Your task to perform on an android device: Check the weather Image 0: 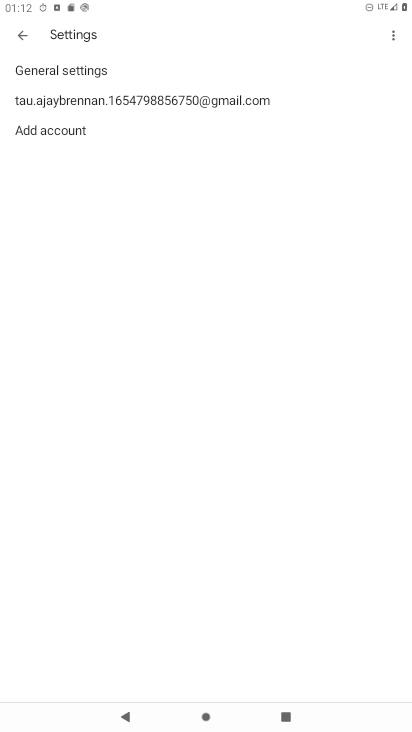
Step 0: press home button
Your task to perform on an android device: Check the weather Image 1: 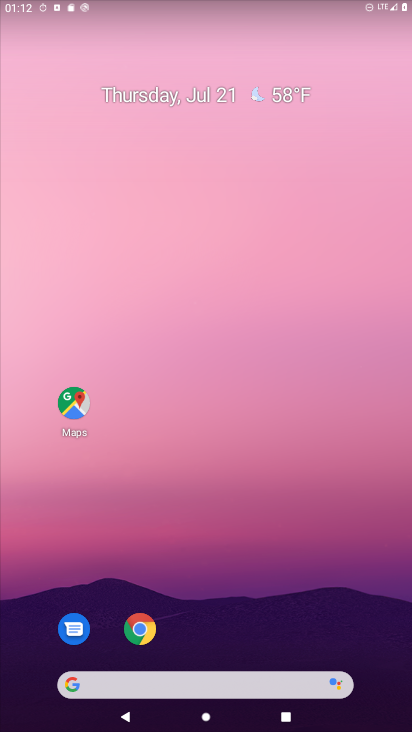
Step 1: drag from (193, 629) to (198, 91)
Your task to perform on an android device: Check the weather Image 2: 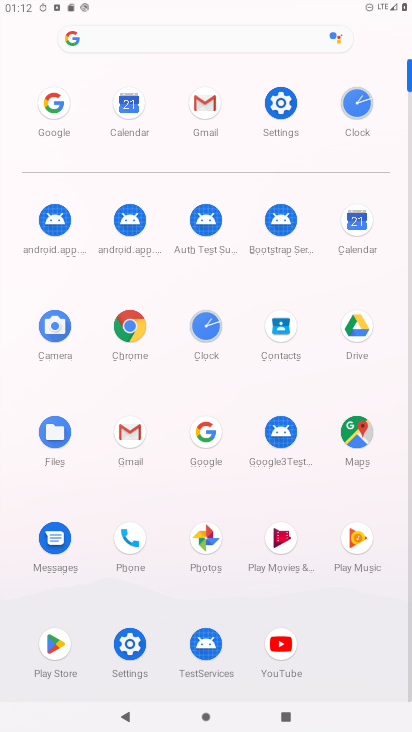
Step 2: click (63, 109)
Your task to perform on an android device: Check the weather Image 3: 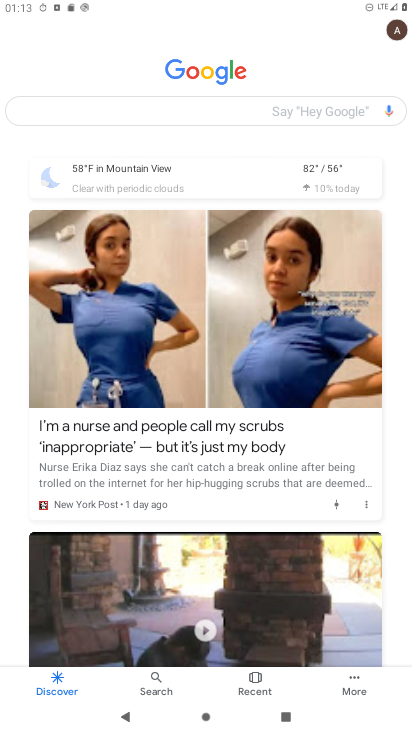
Step 3: click (101, 168)
Your task to perform on an android device: Check the weather Image 4: 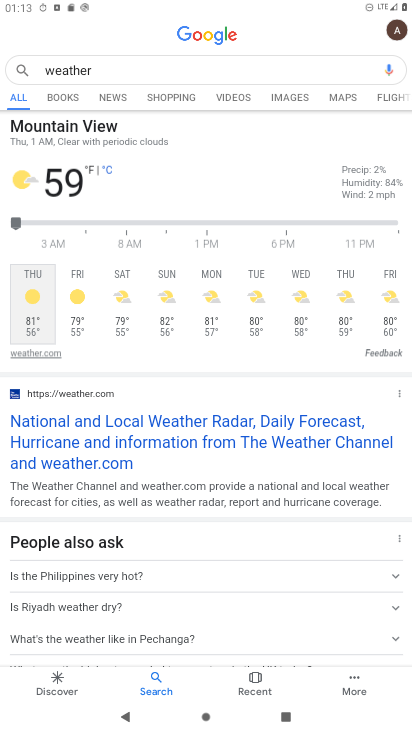
Step 4: task complete